Your task to perform on an android device: open app "Yahoo Mail" (install if not already installed) Image 0: 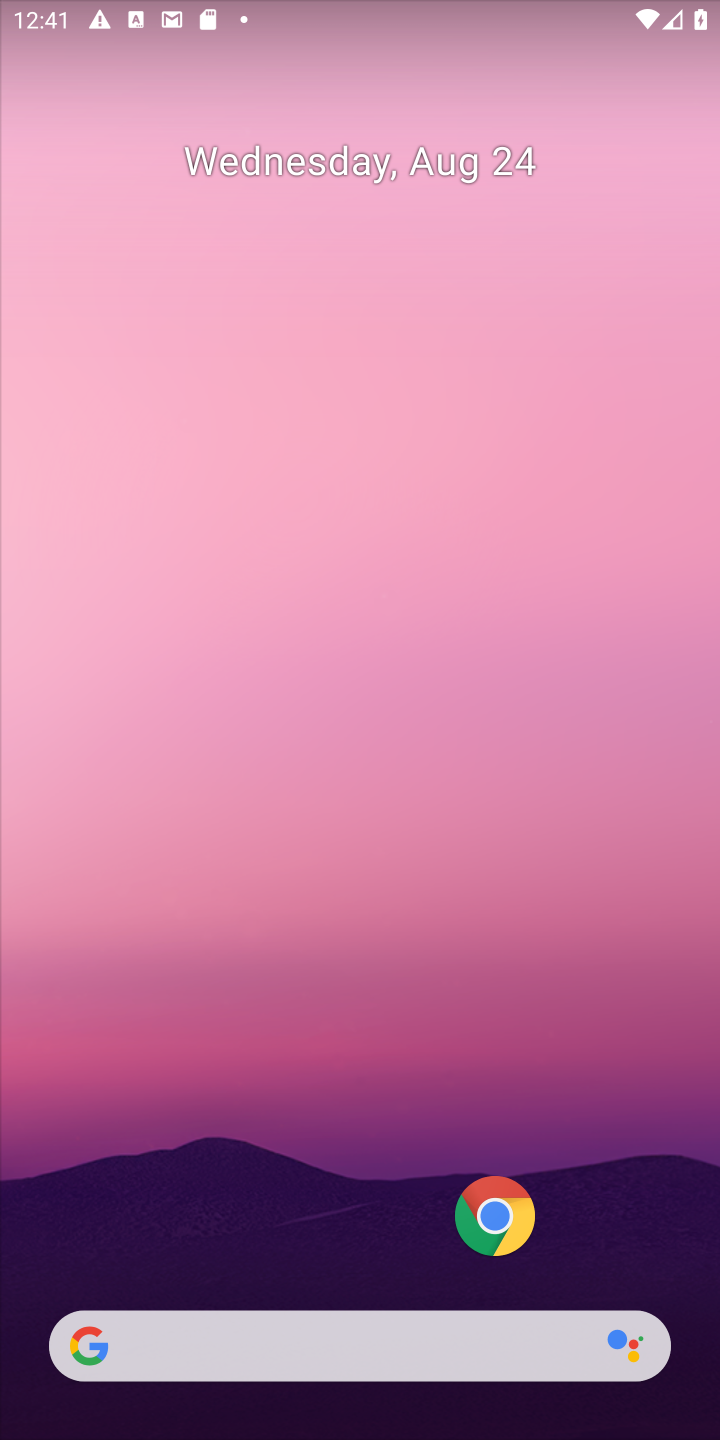
Step 0: drag from (296, 1311) to (369, 78)
Your task to perform on an android device: open app "Yahoo Mail" (install if not already installed) Image 1: 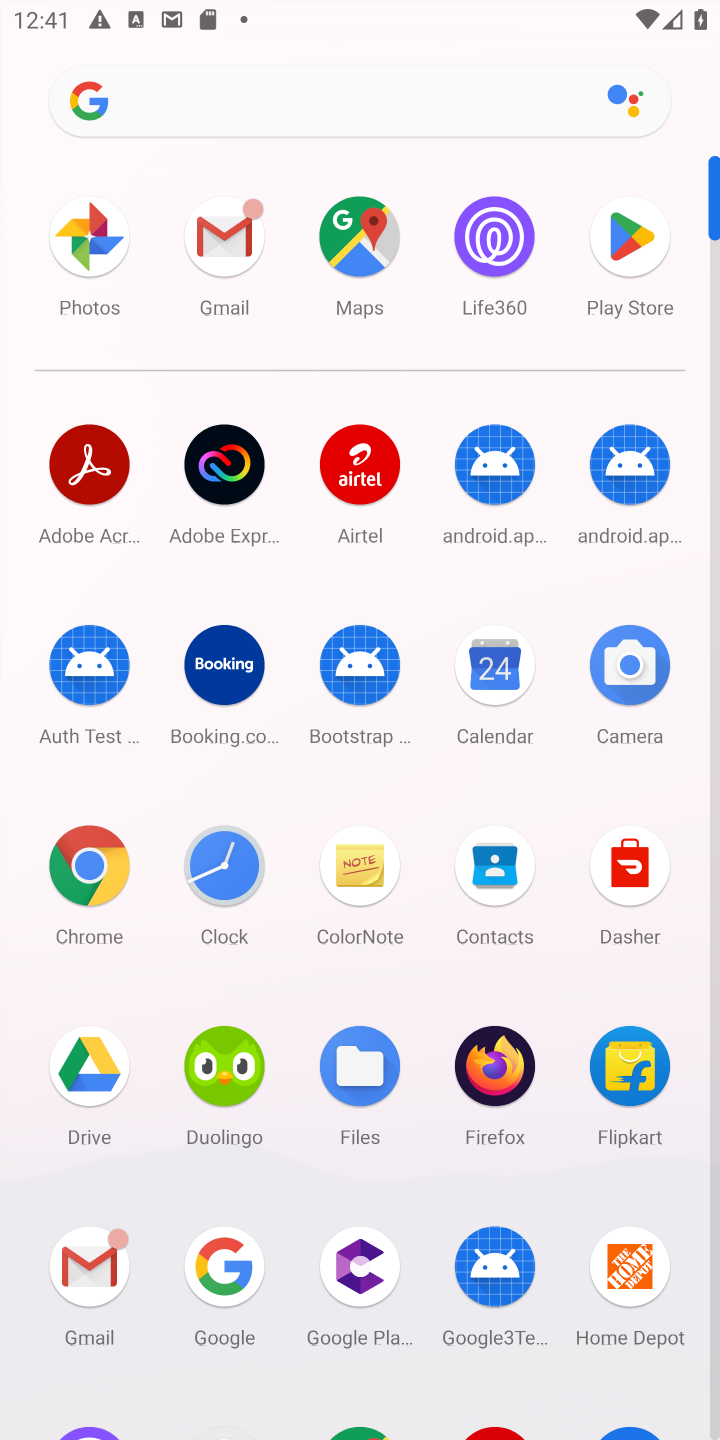
Step 1: click (635, 242)
Your task to perform on an android device: open app "Yahoo Mail" (install if not already installed) Image 2: 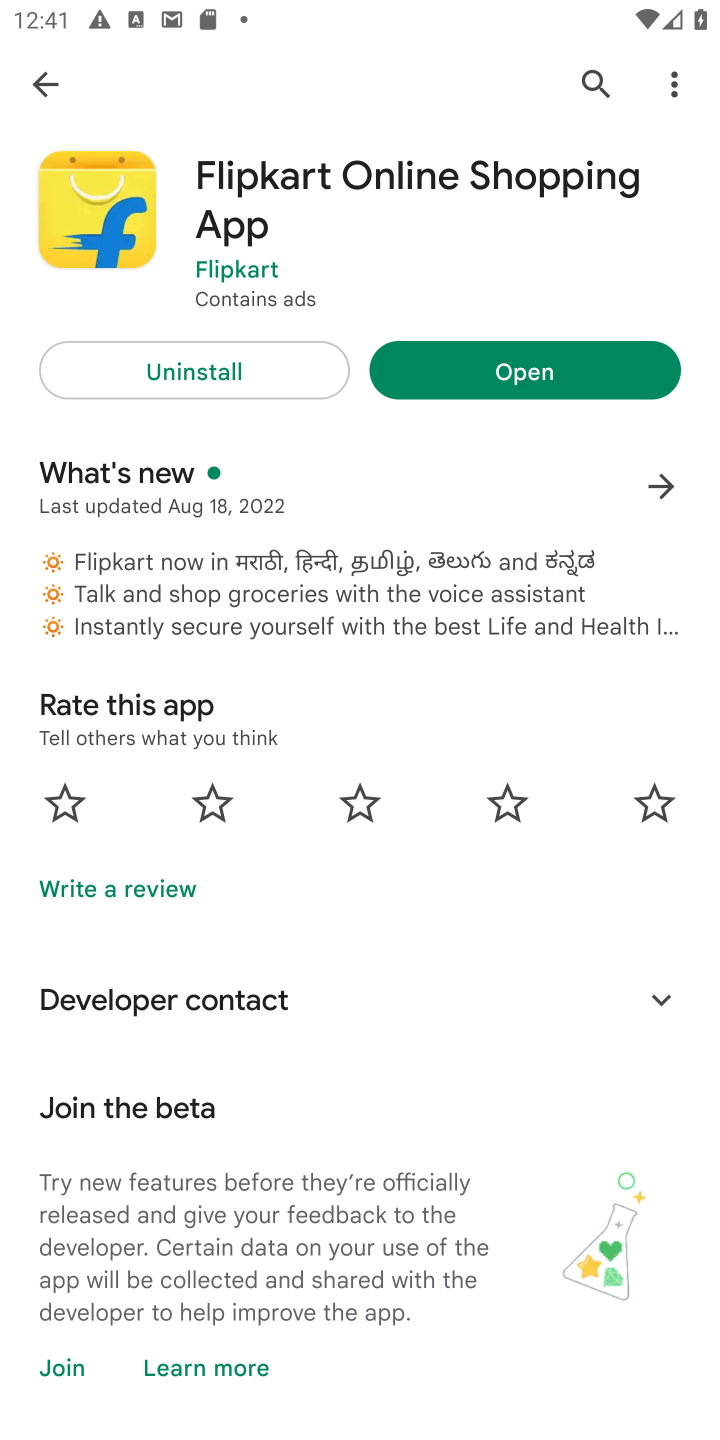
Step 2: press back button
Your task to perform on an android device: open app "Yahoo Mail" (install if not already installed) Image 3: 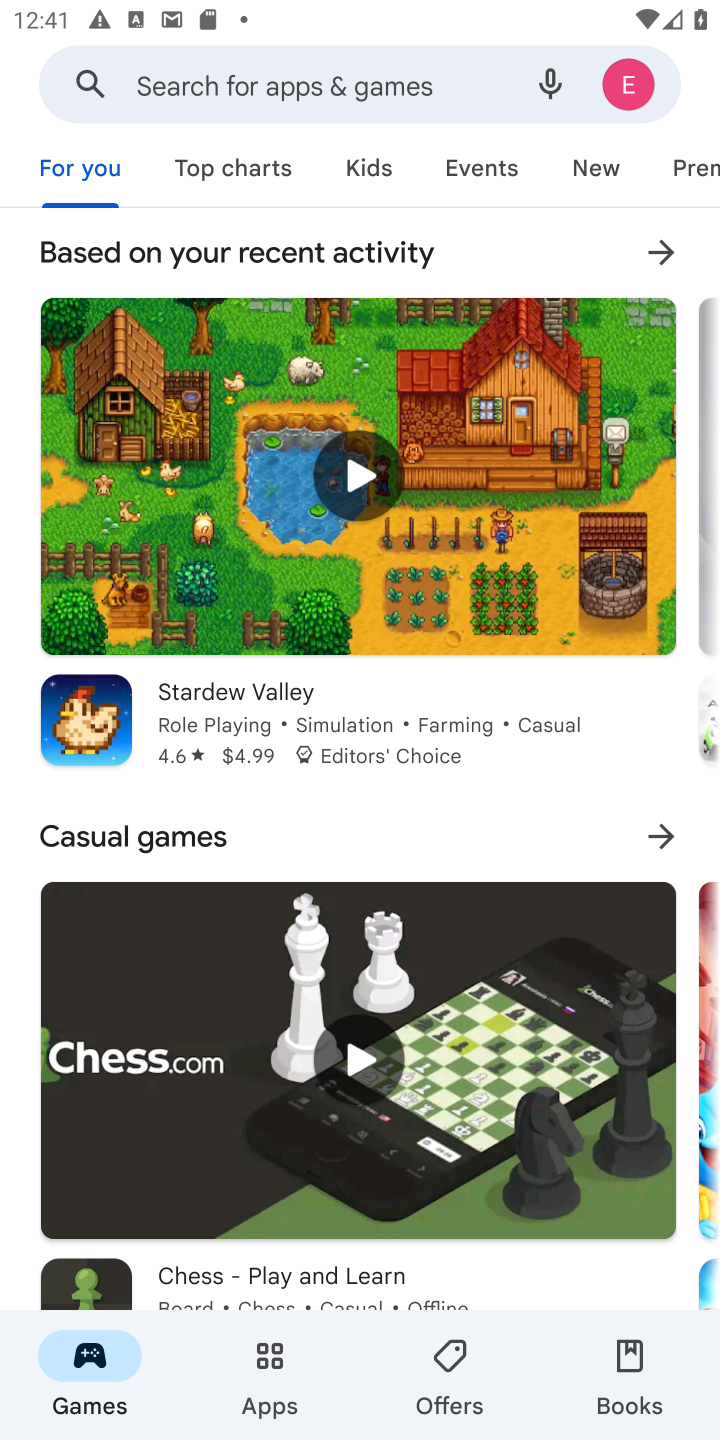
Step 3: click (381, 85)
Your task to perform on an android device: open app "Yahoo Mail" (install if not already installed) Image 4: 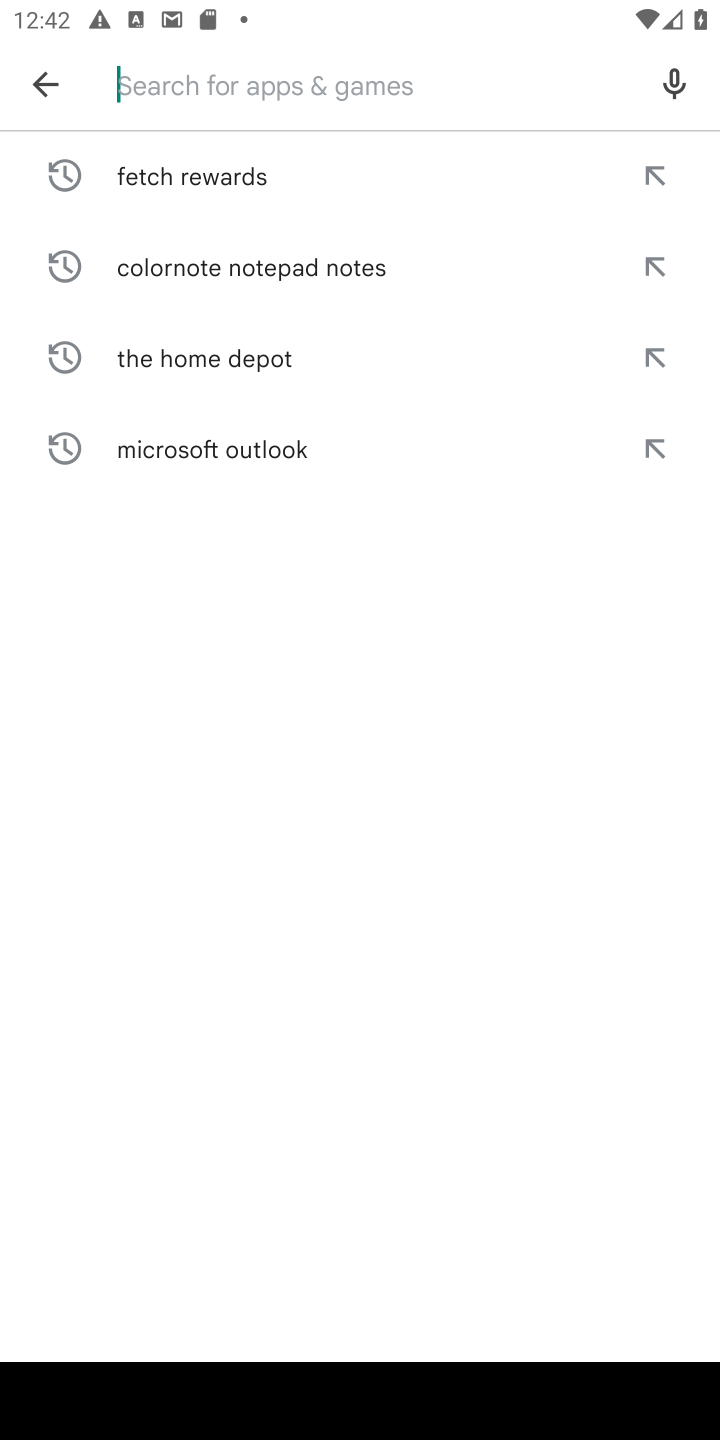
Step 4: type "Yahoo Mail"
Your task to perform on an android device: open app "Yahoo Mail" (install if not already installed) Image 5: 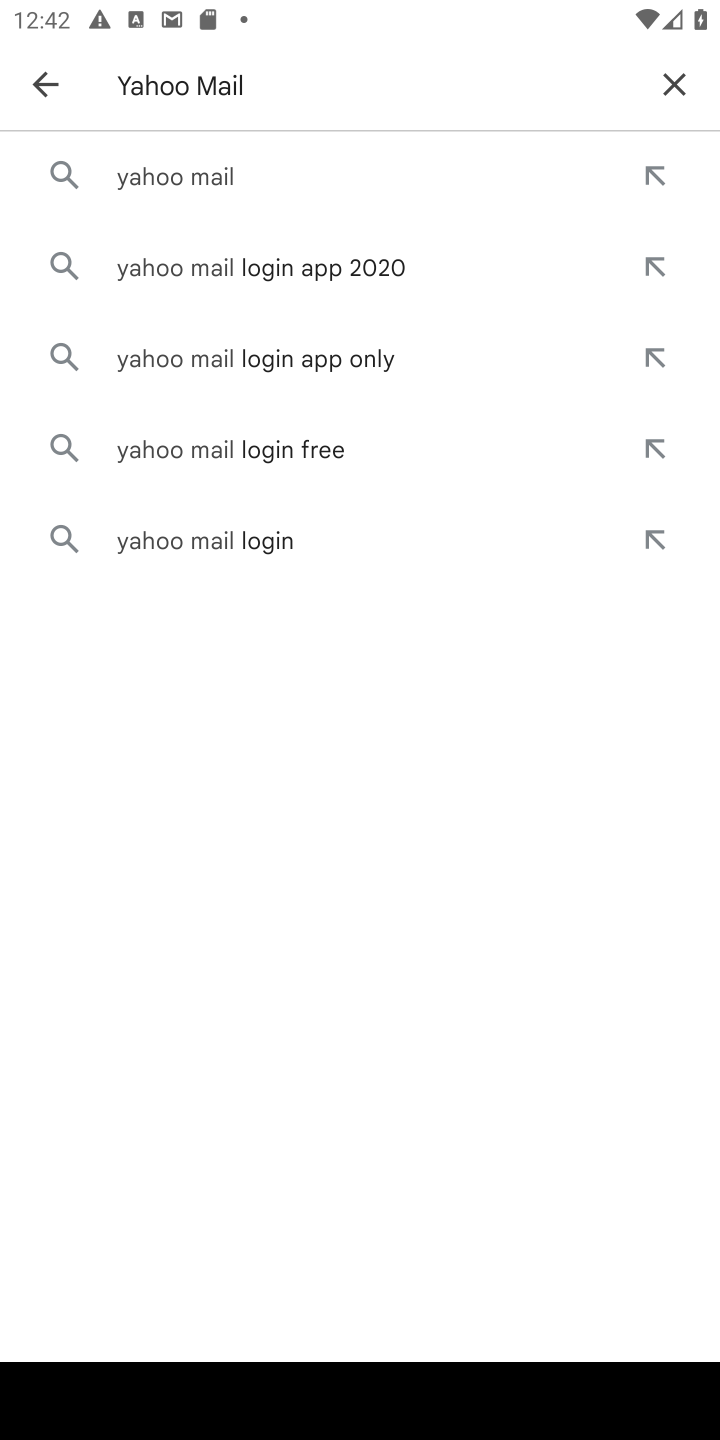
Step 5: click (192, 174)
Your task to perform on an android device: open app "Yahoo Mail" (install if not already installed) Image 6: 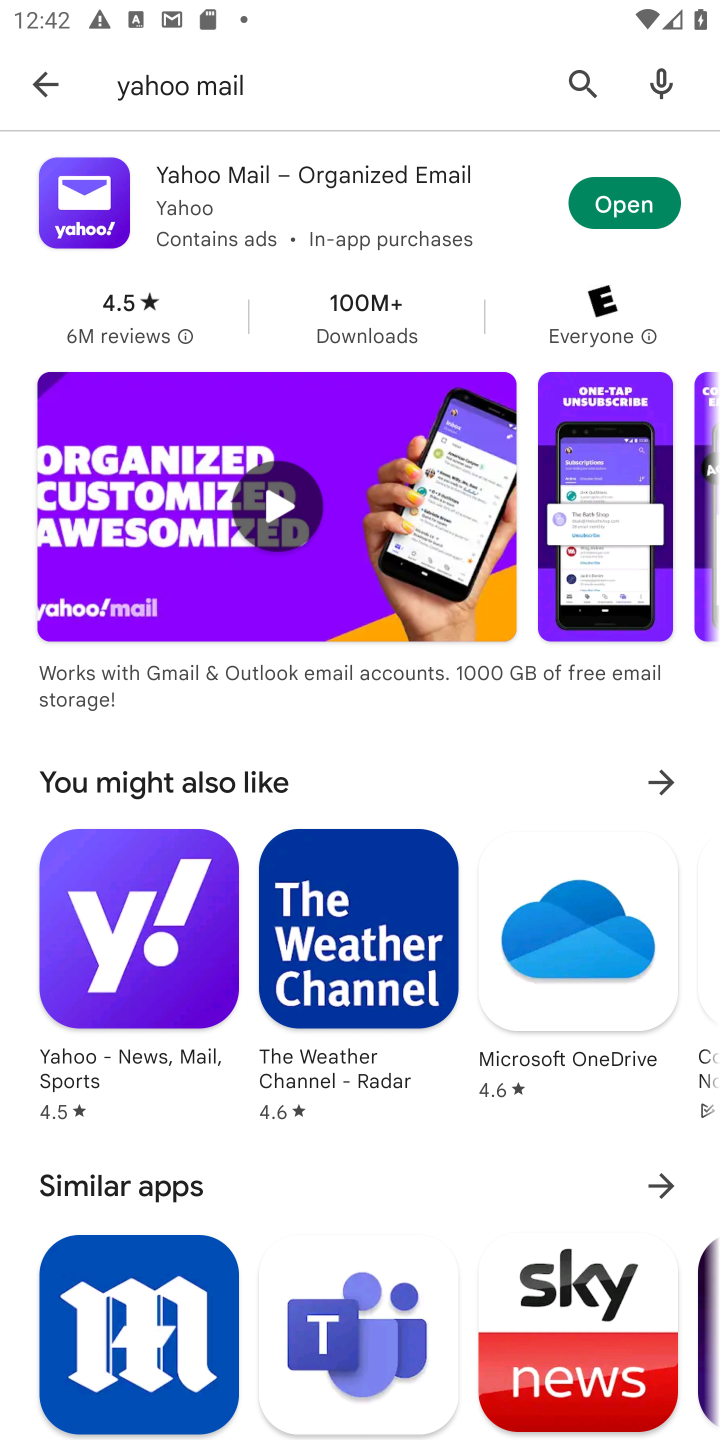
Step 6: click (614, 210)
Your task to perform on an android device: open app "Yahoo Mail" (install if not already installed) Image 7: 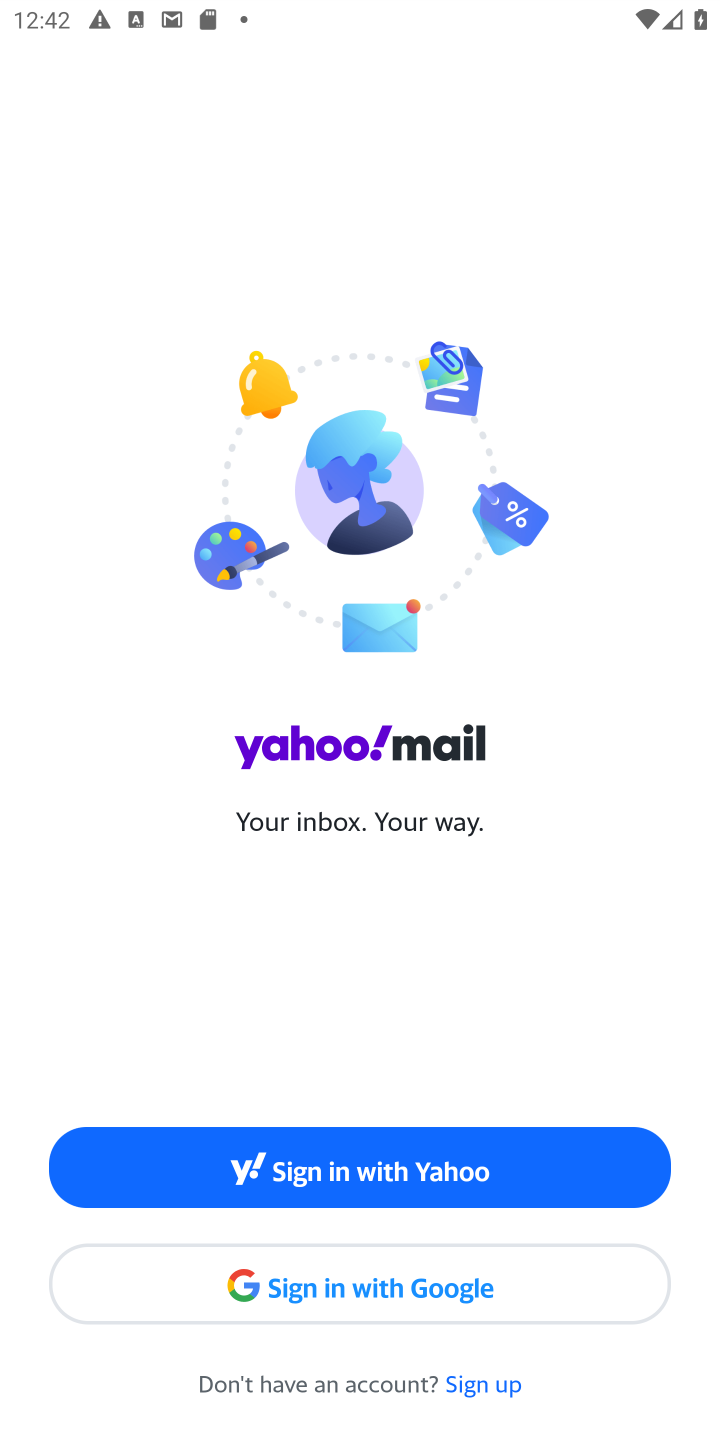
Step 7: task complete